Your task to perform on an android device: change text size in settings app Image 0: 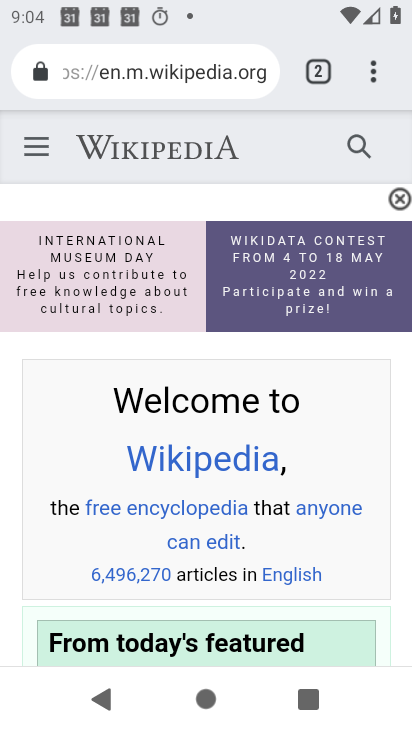
Step 0: press back button
Your task to perform on an android device: change text size in settings app Image 1: 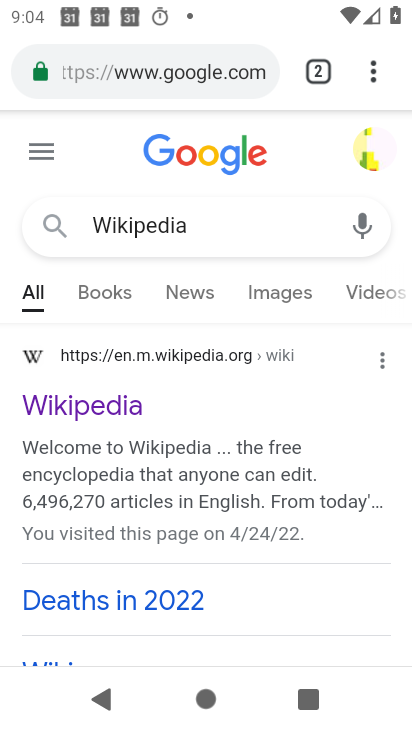
Step 1: press back button
Your task to perform on an android device: change text size in settings app Image 2: 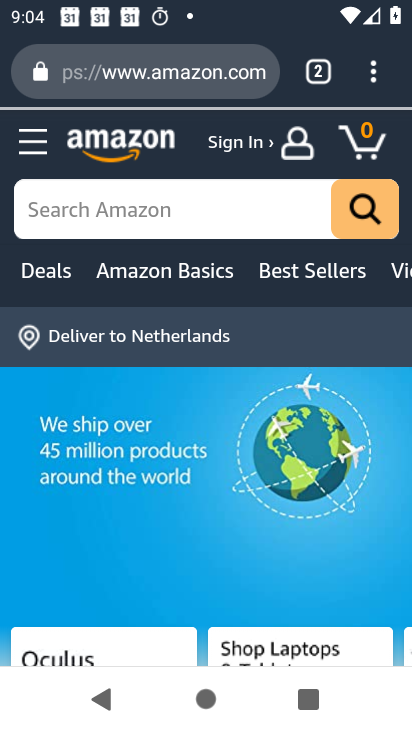
Step 2: press back button
Your task to perform on an android device: change text size in settings app Image 3: 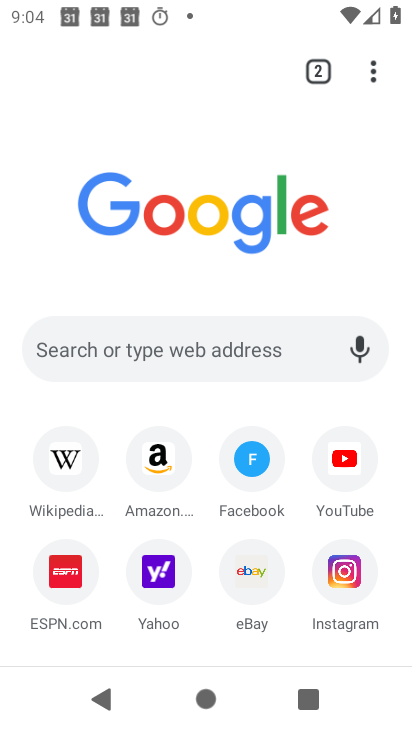
Step 3: press back button
Your task to perform on an android device: change text size in settings app Image 4: 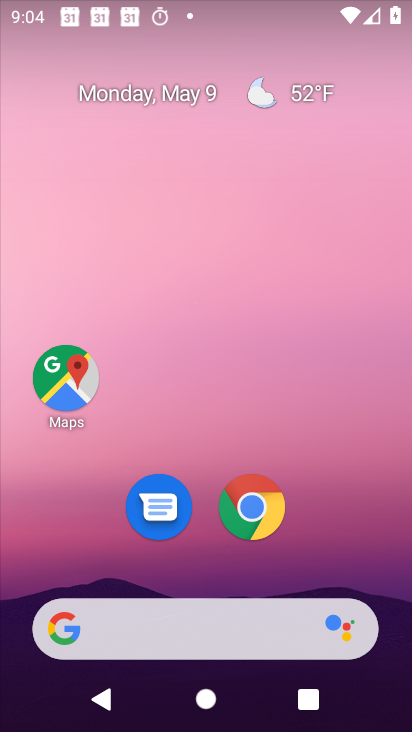
Step 4: drag from (324, 538) to (254, 100)
Your task to perform on an android device: change text size in settings app Image 5: 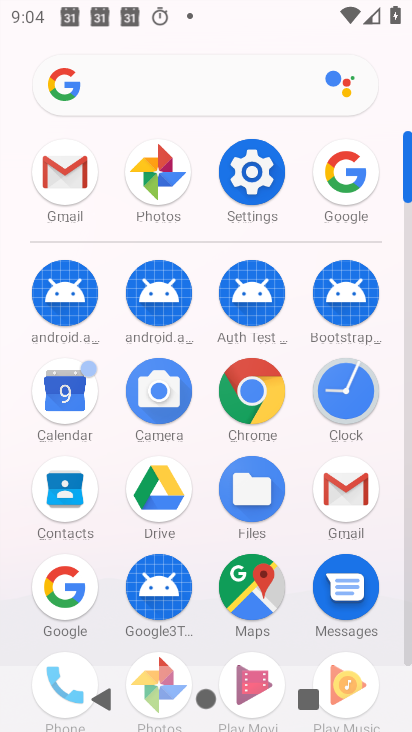
Step 5: click (253, 168)
Your task to perform on an android device: change text size in settings app Image 6: 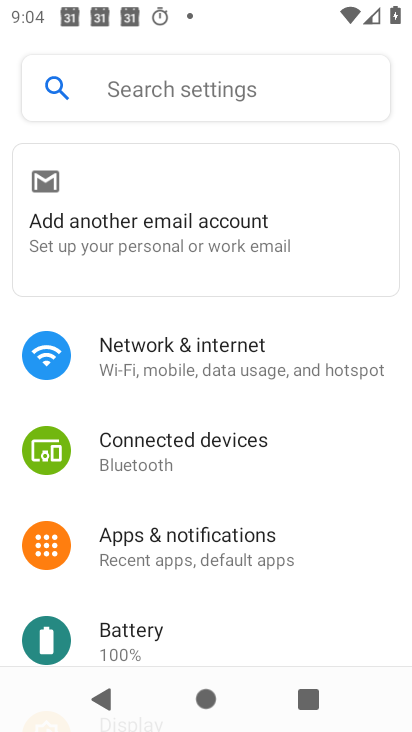
Step 6: drag from (226, 472) to (261, 371)
Your task to perform on an android device: change text size in settings app Image 7: 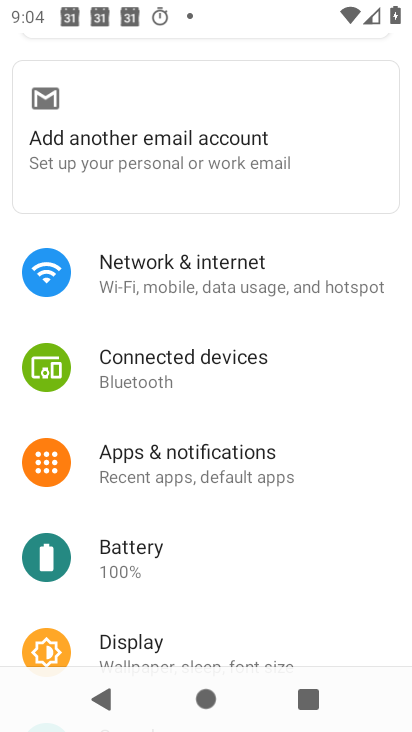
Step 7: drag from (221, 595) to (226, 524)
Your task to perform on an android device: change text size in settings app Image 8: 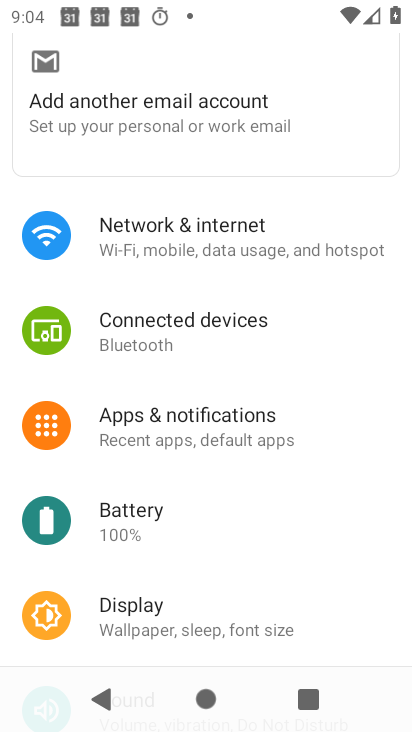
Step 8: drag from (209, 580) to (217, 500)
Your task to perform on an android device: change text size in settings app Image 9: 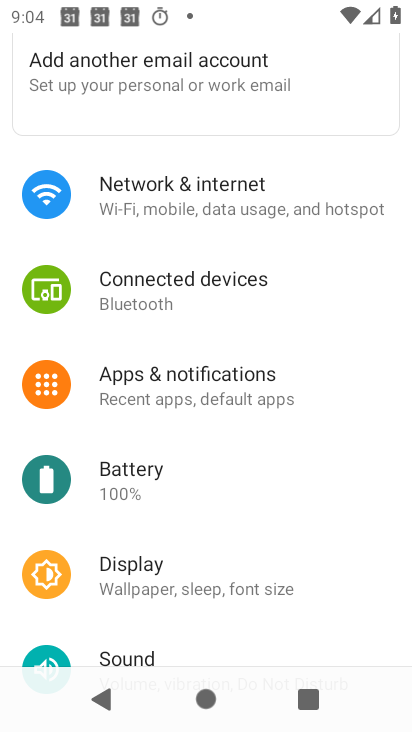
Step 9: drag from (220, 561) to (246, 454)
Your task to perform on an android device: change text size in settings app Image 10: 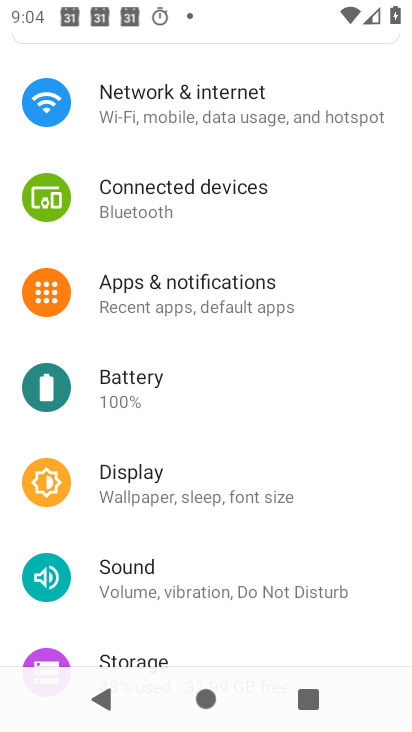
Step 10: drag from (218, 575) to (237, 496)
Your task to perform on an android device: change text size in settings app Image 11: 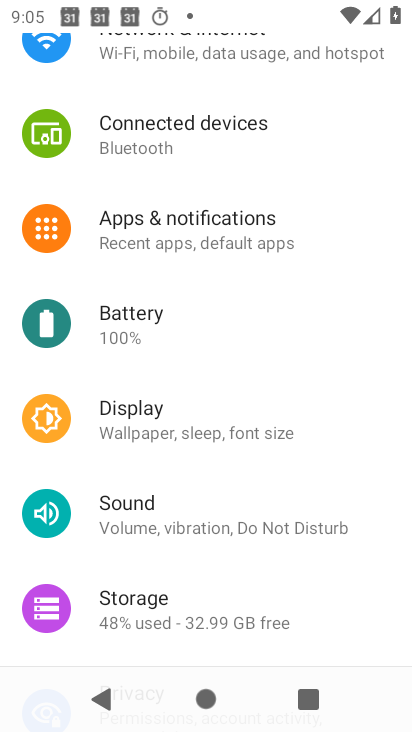
Step 11: drag from (191, 584) to (189, 529)
Your task to perform on an android device: change text size in settings app Image 12: 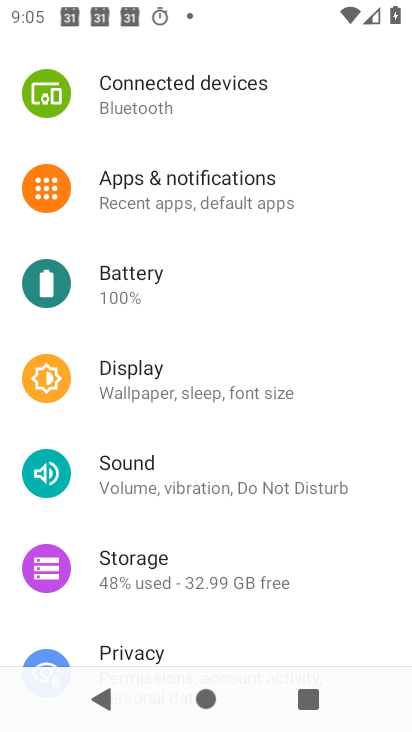
Step 12: drag from (177, 639) to (234, 560)
Your task to perform on an android device: change text size in settings app Image 13: 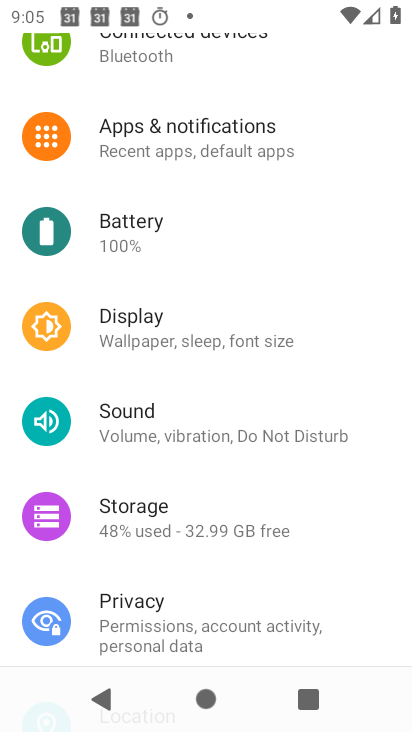
Step 13: drag from (205, 570) to (275, 447)
Your task to perform on an android device: change text size in settings app Image 14: 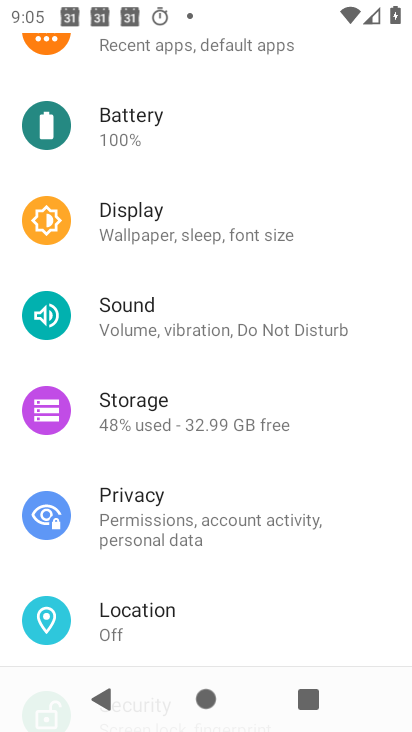
Step 14: drag from (210, 578) to (233, 392)
Your task to perform on an android device: change text size in settings app Image 15: 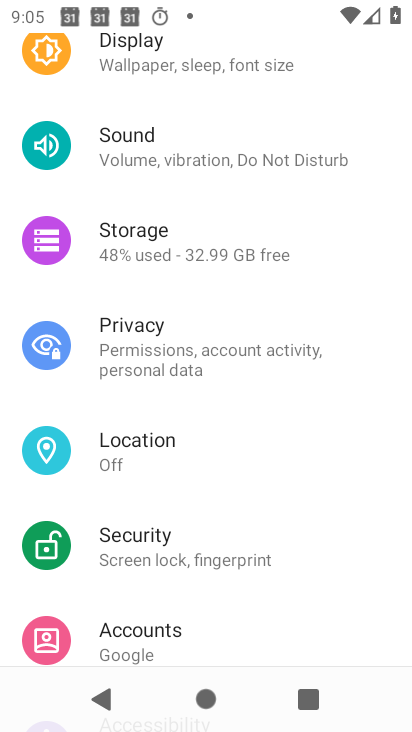
Step 15: drag from (218, 611) to (238, 514)
Your task to perform on an android device: change text size in settings app Image 16: 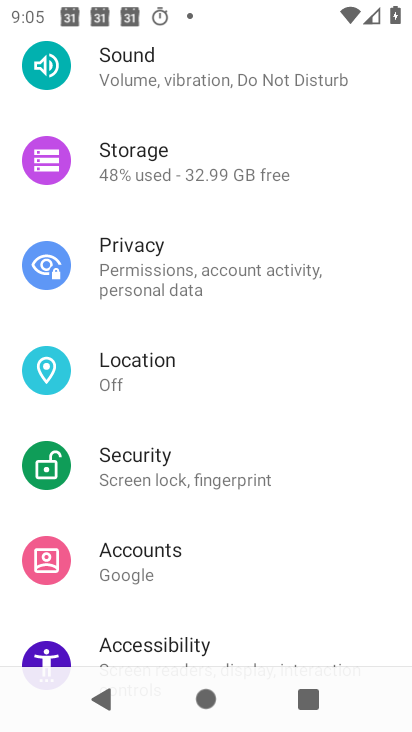
Step 16: drag from (237, 584) to (283, 426)
Your task to perform on an android device: change text size in settings app Image 17: 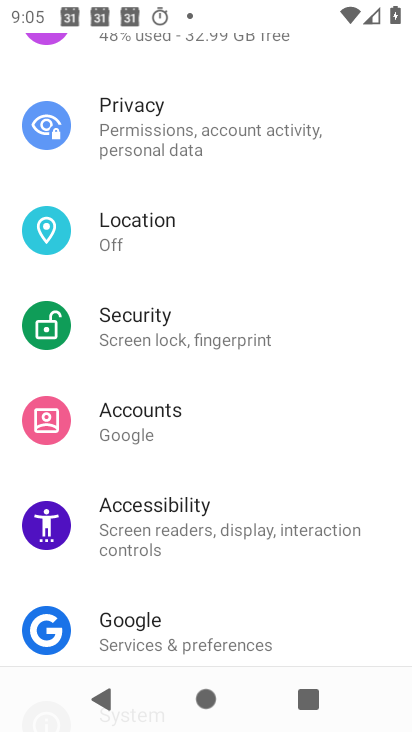
Step 17: click (183, 507)
Your task to perform on an android device: change text size in settings app Image 18: 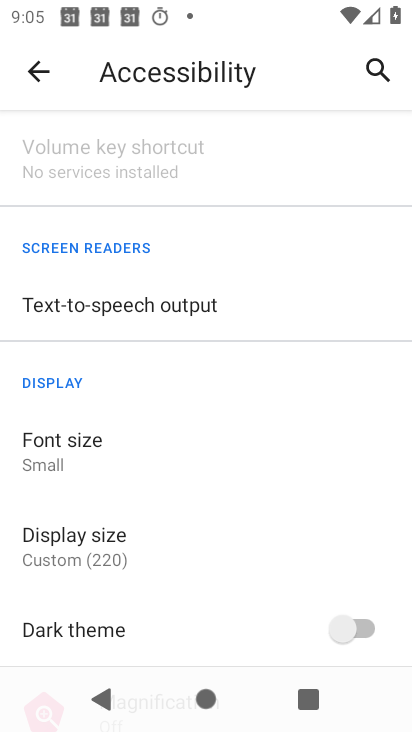
Step 18: click (90, 442)
Your task to perform on an android device: change text size in settings app Image 19: 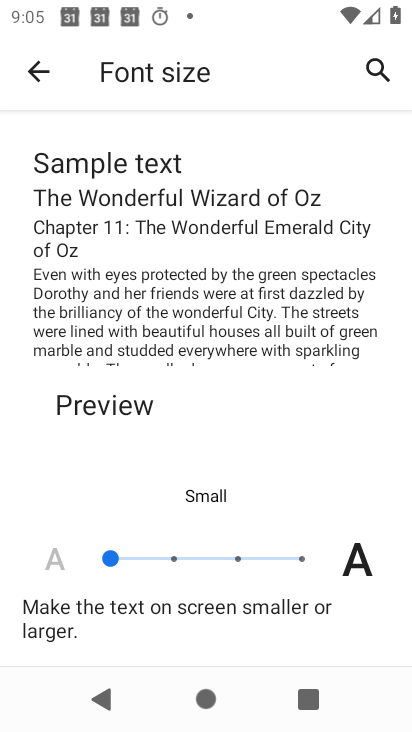
Step 19: click (168, 561)
Your task to perform on an android device: change text size in settings app Image 20: 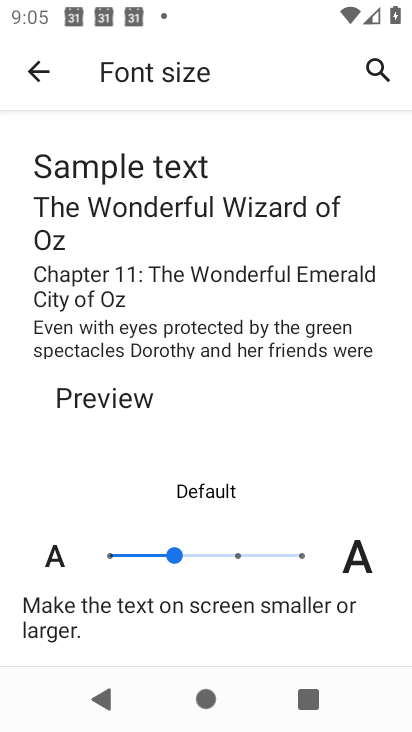
Step 20: task complete